Your task to perform on an android device: see sites visited before in the chrome app Image 0: 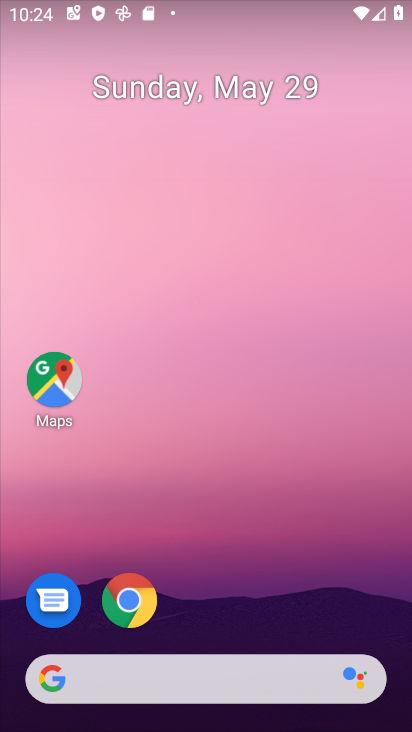
Step 0: click (124, 595)
Your task to perform on an android device: see sites visited before in the chrome app Image 1: 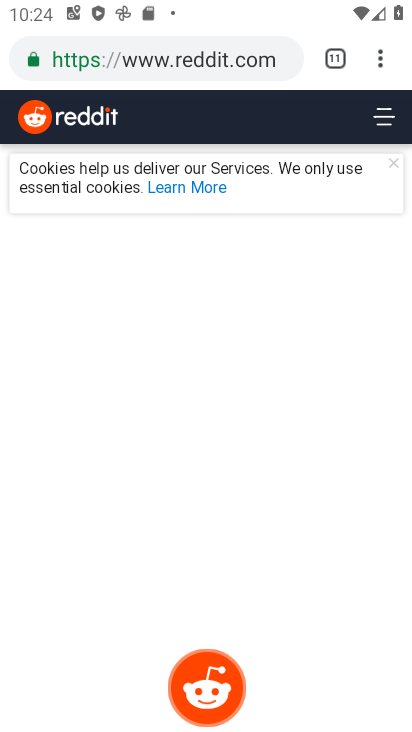
Step 1: click (381, 67)
Your task to perform on an android device: see sites visited before in the chrome app Image 2: 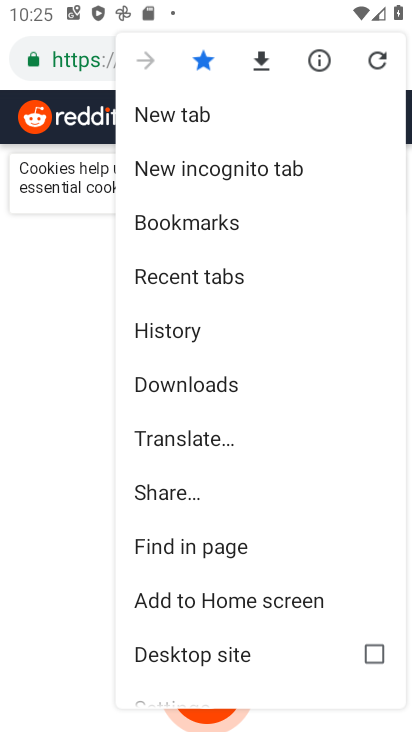
Step 2: click (163, 329)
Your task to perform on an android device: see sites visited before in the chrome app Image 3: 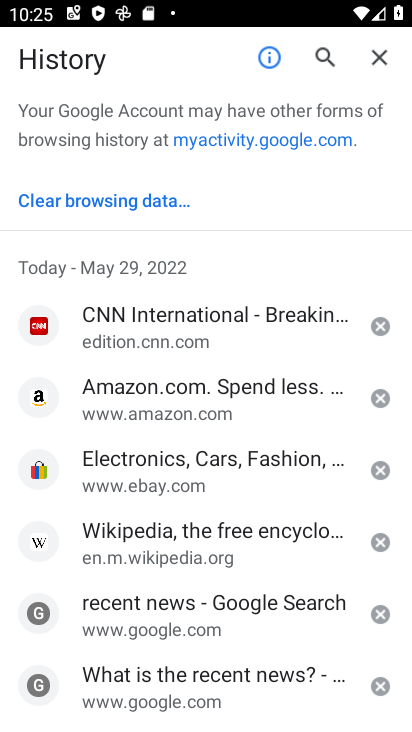
Step 3: task complete